Your task to perform on an android device: Go to sound settings Image 0: 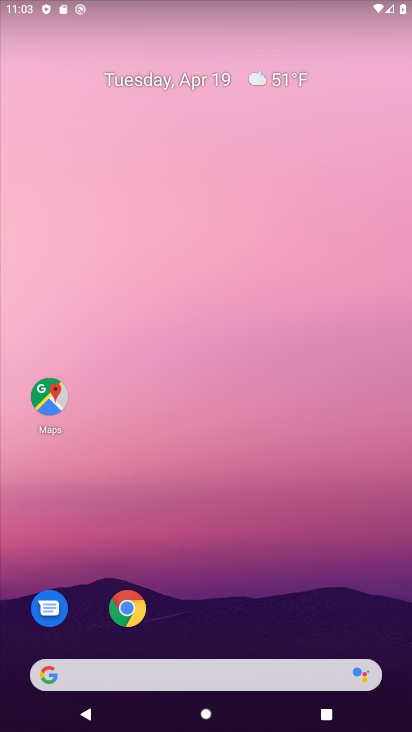
Step 0: drag from (372, 620) to (351, 146)
Your task to perform on an android device: Go to sound settings Image 1: 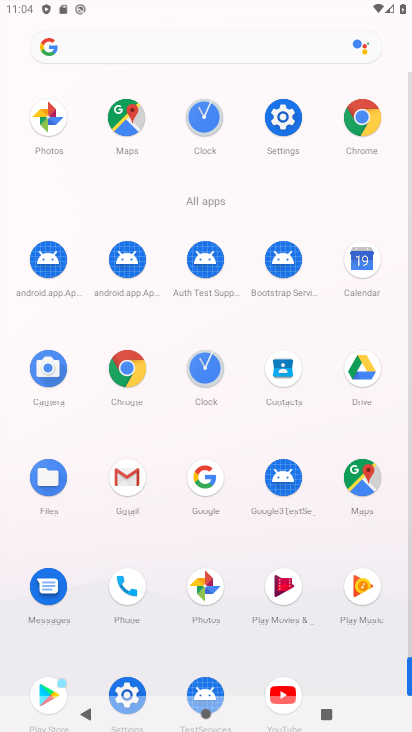
Step 1: drag from (380, 662) to (394, 328)
Your task to perform on an android device: Go to sound settings Image 2: 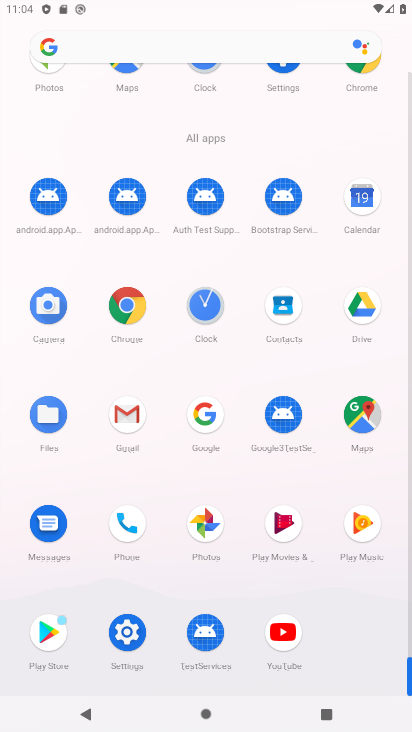
Step 2: click (123, 646)
Your task to perform on an android device: Go to sound settings Image 3: 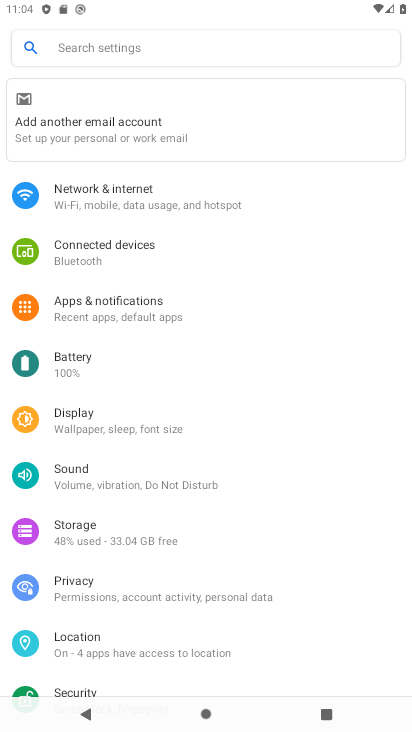
Step 3: drag from (334, 576) to (349, 305)
Your task to perform on an android device: Go to sound settings Image 4: 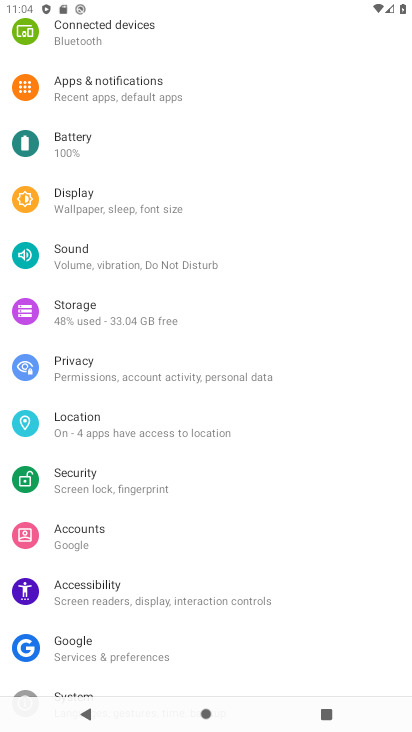
Step 4: click (148, 265)
Your task to perform on an android device: Go to sound settings Image 5: 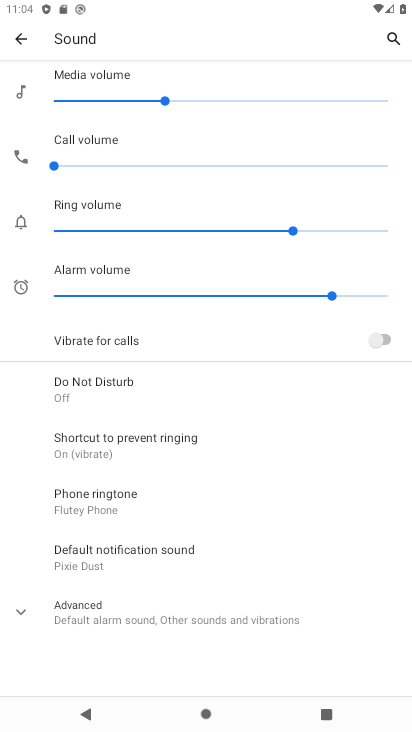
Step 5: click (198, 616)
Your task to perform on an android device: Go to sound settings Image 6: 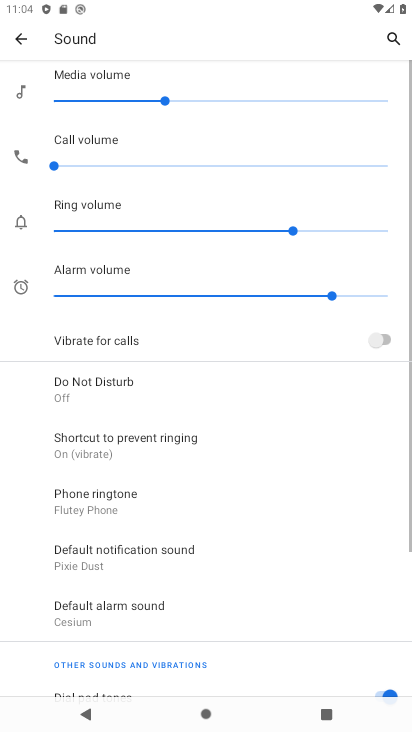
Step 6: task complete